Your task to perform on an android device: Go to CNN.com Image 0: 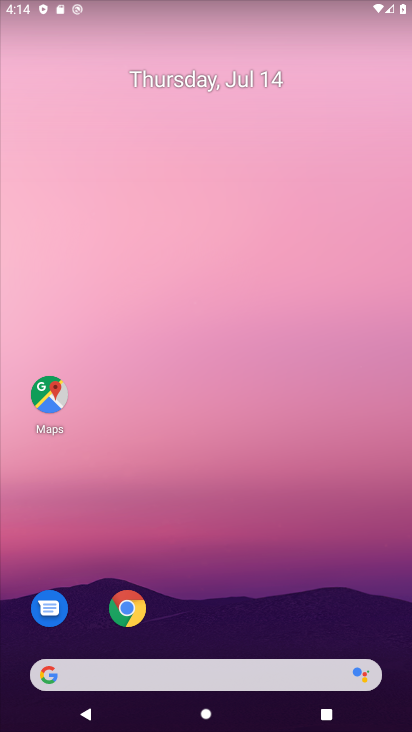
Step 0: click (111, 599)
Your task to perform on an android device: Go to CNN.com Image 1: 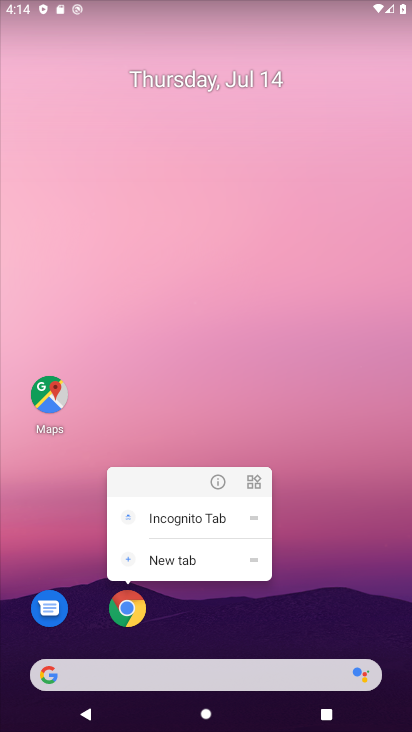
Step 1: click (137, 617)
Your task to perform on an android device: Go to CNN.com Image 2: 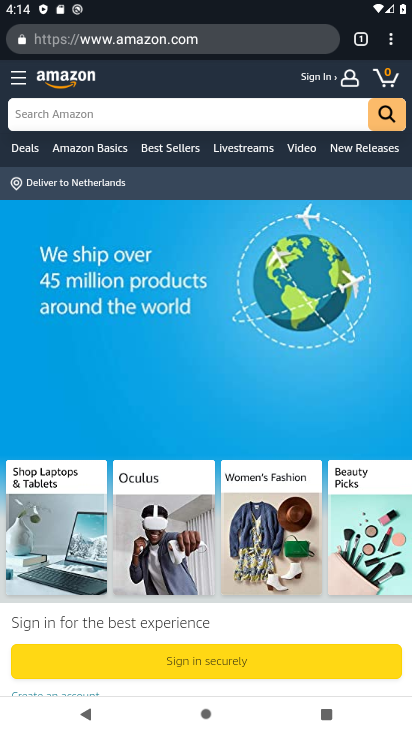
Step 2: click (359, 38)
Your task to perform on an android device: Go to CNN.com Image 3: 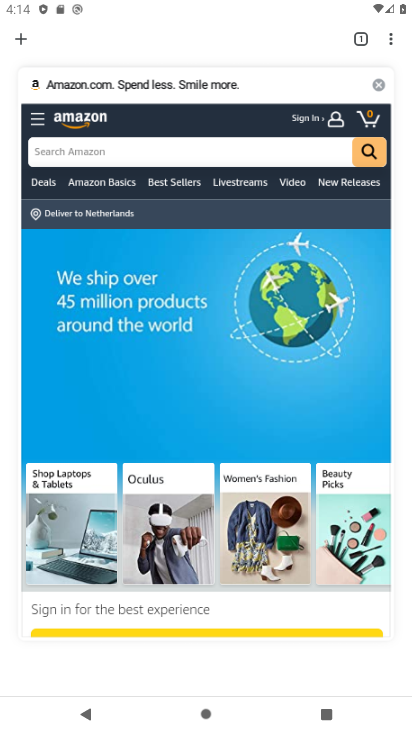
Step 3: click (22, 29)
Your task to perform on an android device: Go to CNN.com Image 4: 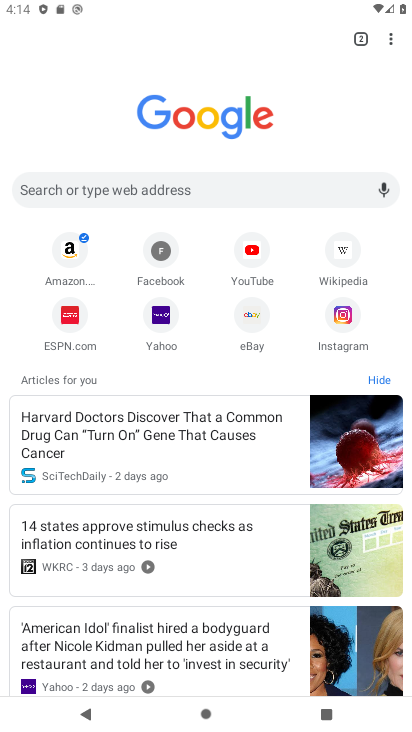
Step 4: click (166, 187)
Your task to perform on an android device: Go to CNN.com Image 5: 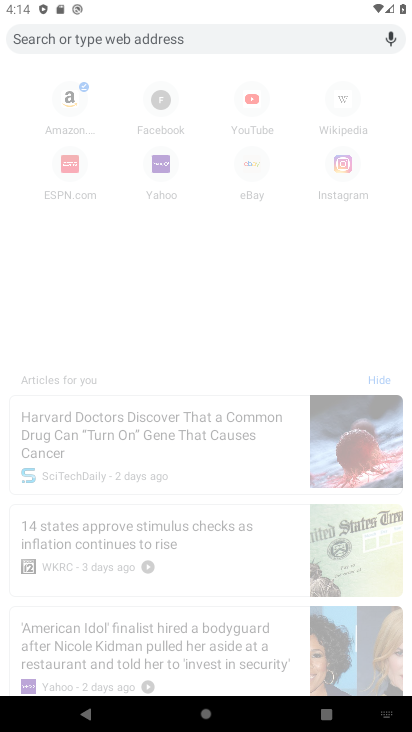
Step 5: type "CNN.com"
Your task to perform on an android device: Go to CNN.com Image 6: 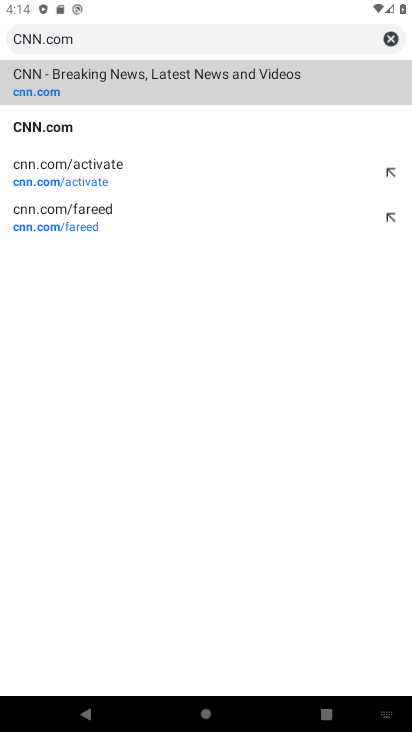
Step 6: click (106, 88)
Your task to perform on an android device: Go to CNN.com Image 7: 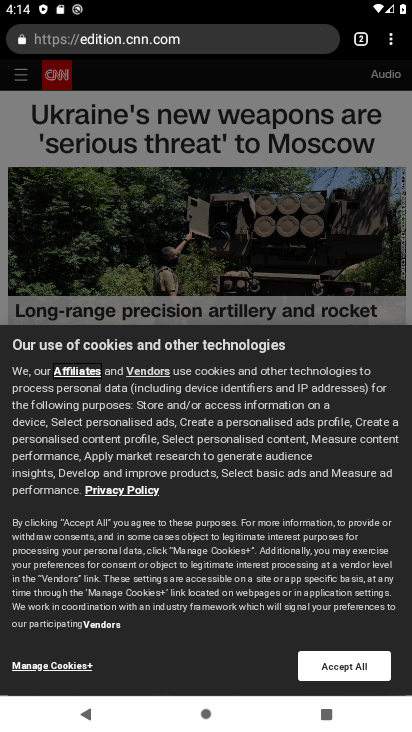
Step 7: task complete